Your task to perform on an android device: Open notification settings Image 0: 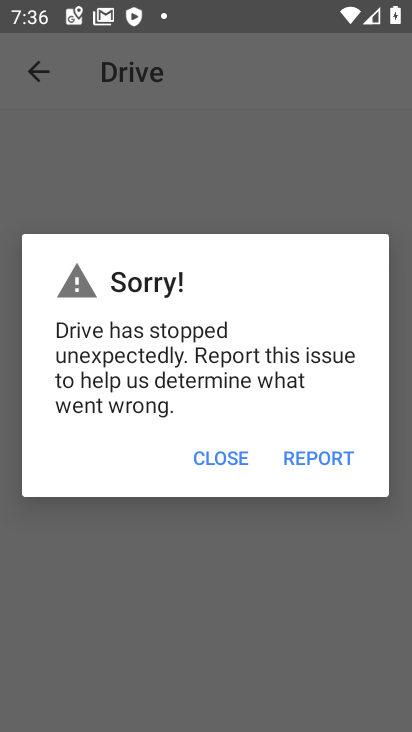
Step 0: press home button
Your task to perform on an android device: Open notification settings Image 1: 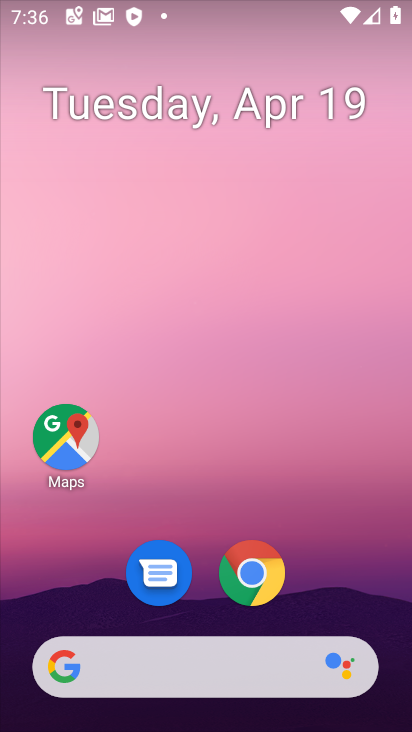
Step 1: drag from (360, 344) to (333, 137)
Your task to perform on an android device: Open notification settings Image 2: 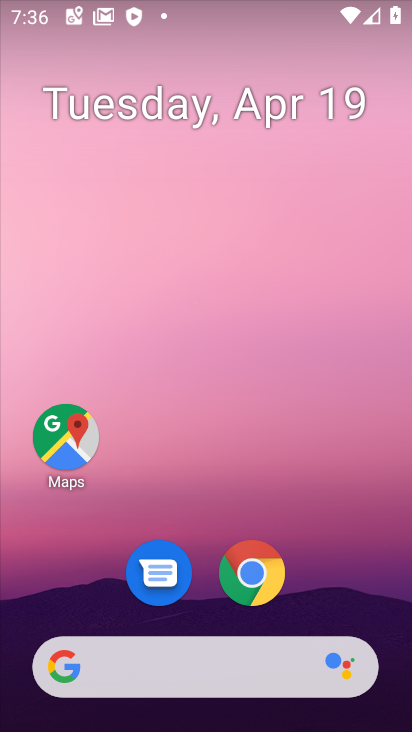
Step 2: drag from (377, 612) to (354, 205)
Your task to perform on an android device: Open notification settings Image 3: 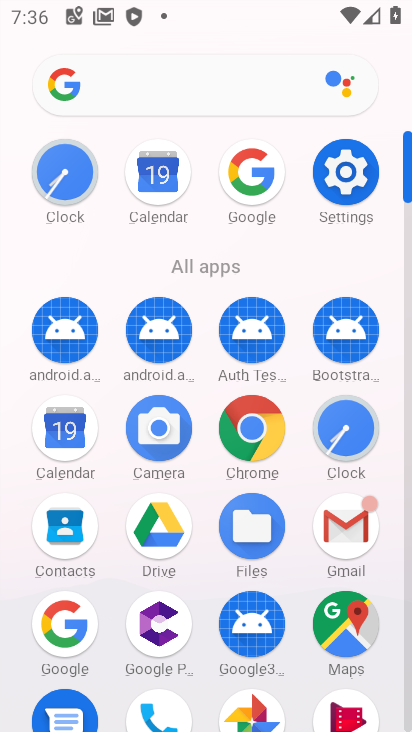
Step 3: click (346, 181)
Your task to perform on an android device: Open notification settings Image 4: 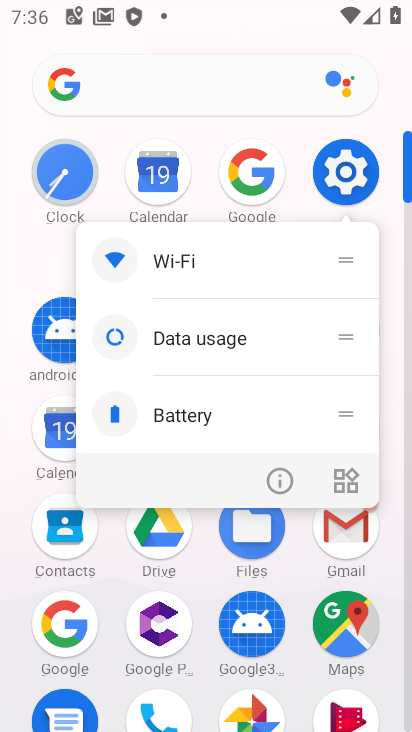
Step 4: click (347, 164)
Your task to perform on an android device: Open notification settings Image 5: 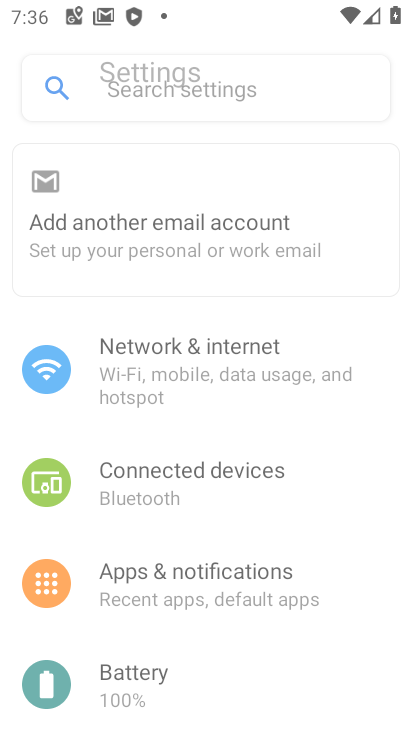
Step 5: click (347, 164)
Your task to perform on an android device: Open notification settings Image 6: 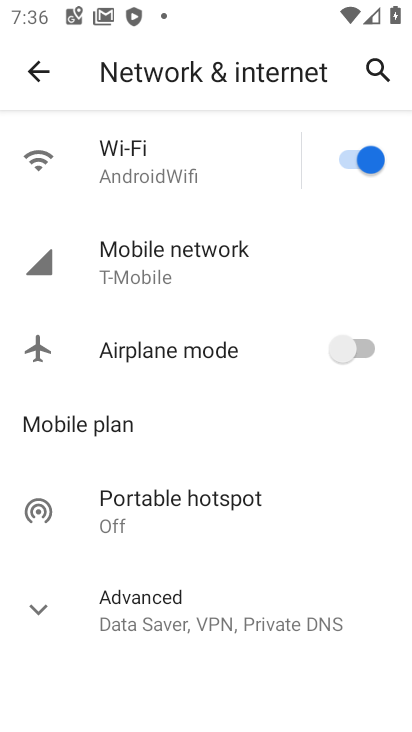
Step 6: press back button
Your task to perform on an android device: Open notification settings Image 7: 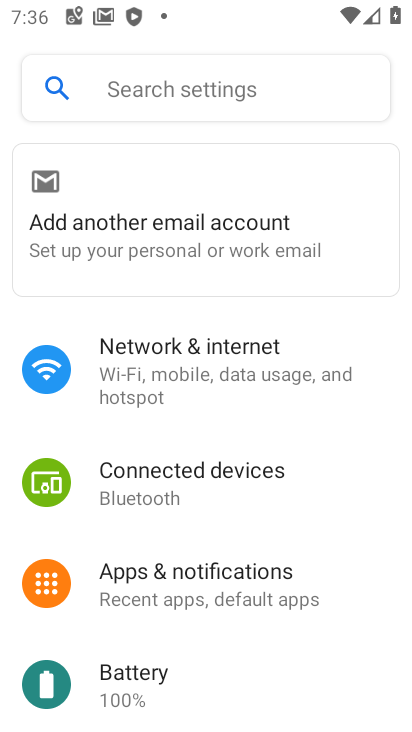
Step 7: click (175, 583)
Your task to perform on an android device: Open notification settings Image 8: 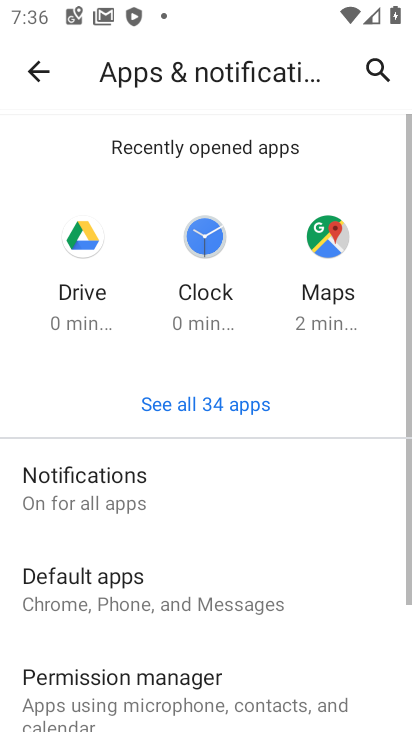
Step 8: click (82, 474)
Your task to perform on an android device: Open notification settings Image 9: 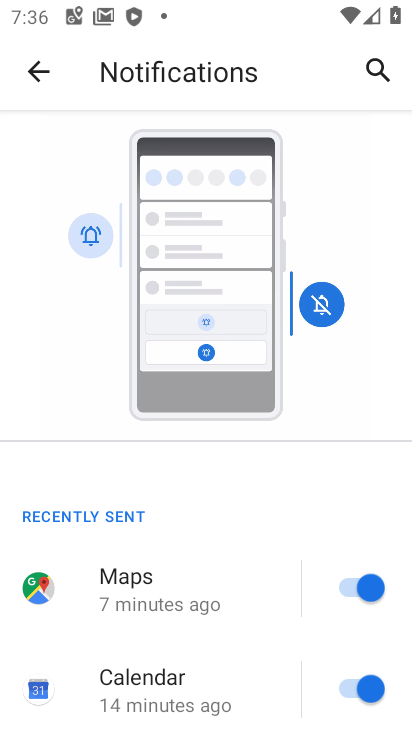
Step 9: drag from (250, 691) to (264, 262)
Your task to perform on an android device: Open notification settings Image 10: 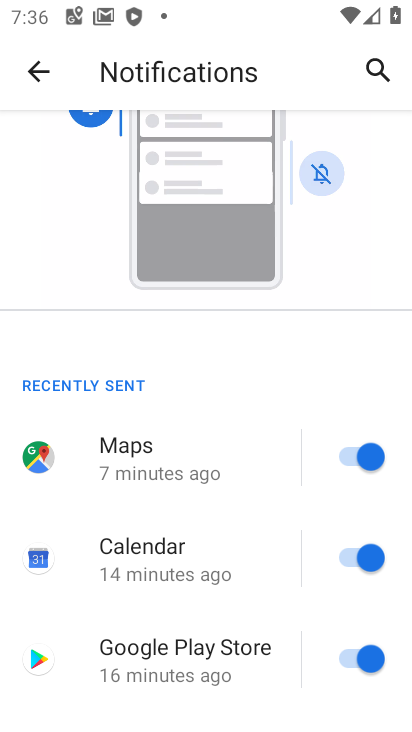
Step 10: drag from (269, 585) to (271, 280)
Your task to perform on an android device: Open notification settings Image 11: 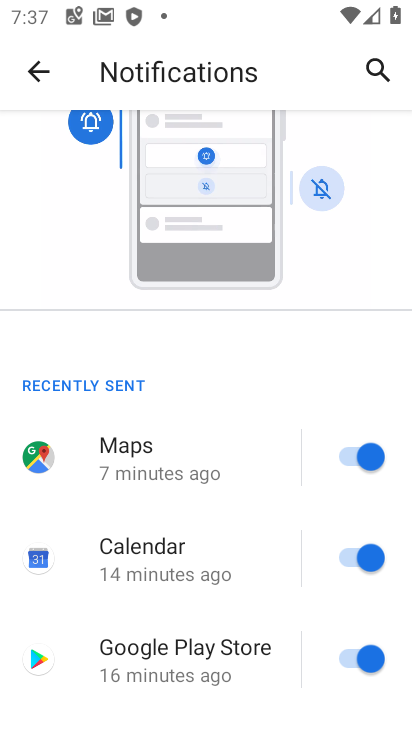
Step 11: drag from (258, 652) to (229, 268)
Your task to perform on an android device: Open notification settings Image 12: 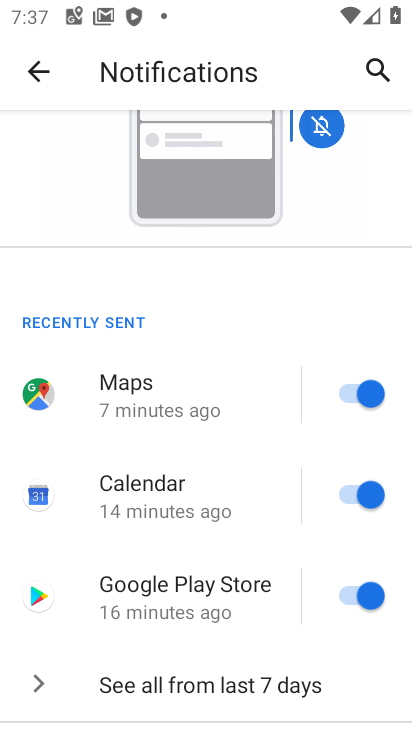
Step 12: drag from (270, 491) to (271, 217)
Your task to perform on an android device: Open notification settings Image 13: 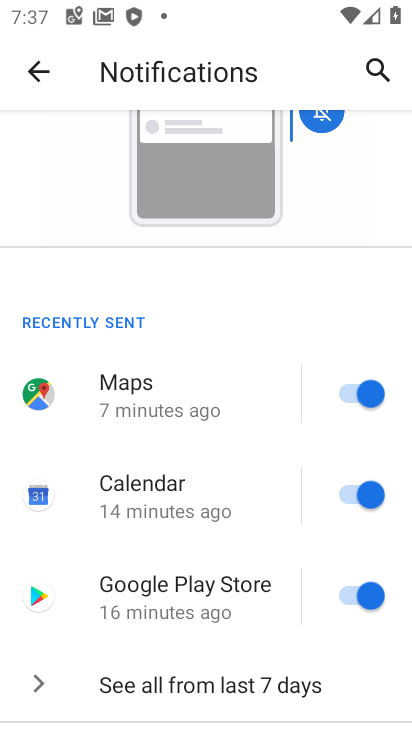
Step 13: drag from (301, 688) to (300, 177)
Your task to perform on an android device: Open notification settings Image 14: 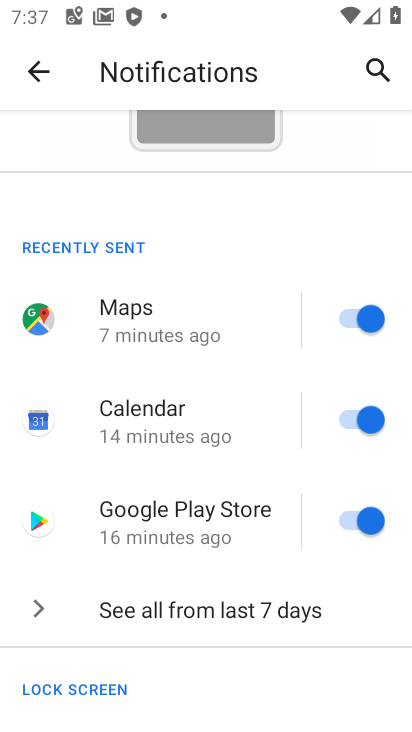
Step 14: drag from (273, 236) to (261, 166)
Your task to perform on an android device: Open notification settings Image 15: 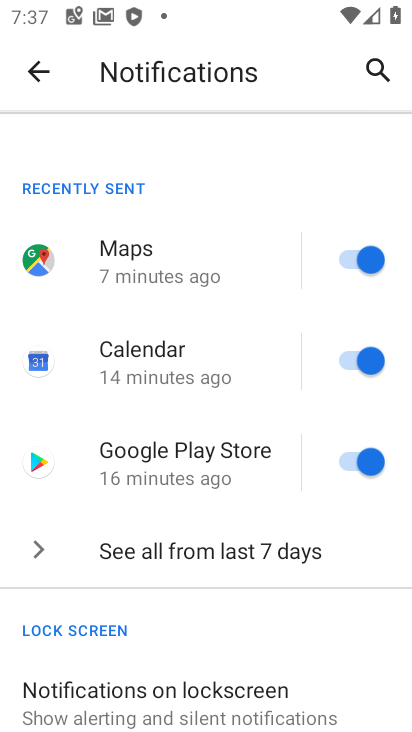
Step 15: drag from (292, 585) to (272, 219)
Your task to perform on an android device: Open notification settings Image 16: 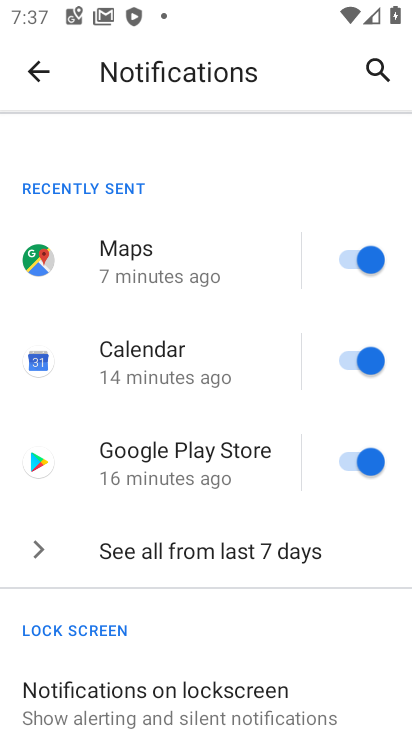
Step 16: drag from (299, 574) to (303, 119)
Your task to perform on an android device: Open notification settings Image 17: 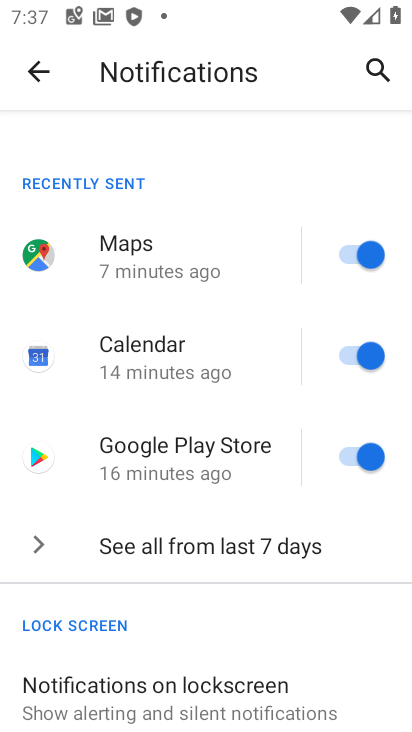
Step 17: drag from (290, 633) to (280, 62)
Your task to perform on an android device: Open notification settings Image 18: 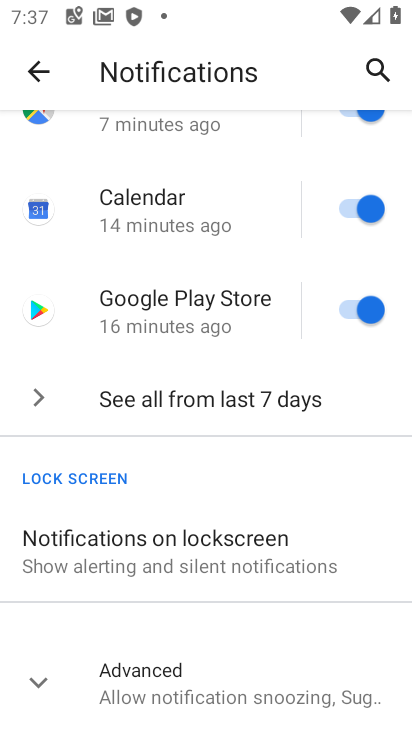
Step 18: click (240, 38)
Your task to perform on an android device: Open notification settings Image 19: 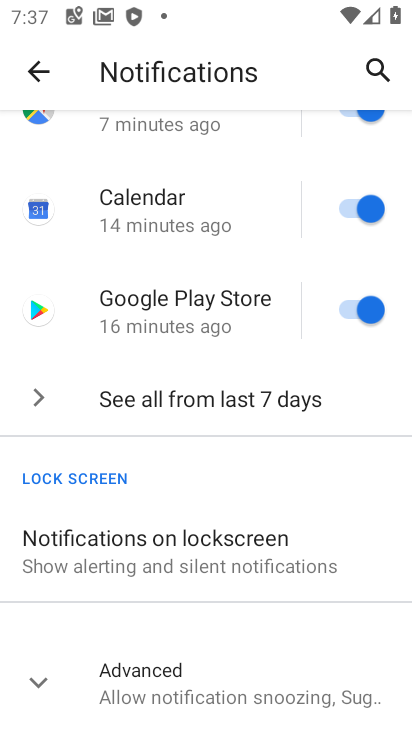
Step 19: task complete